Your task to perform on an android device: Open the web browser Image 0: 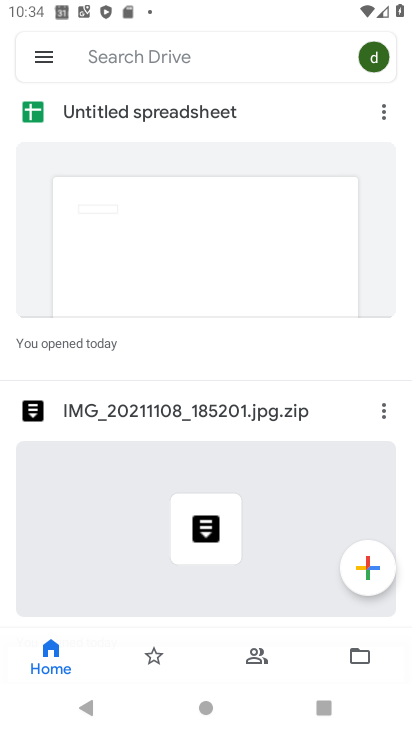
Step 0: press home button
Your task to perform on an android device: Open the web browser Image 1: 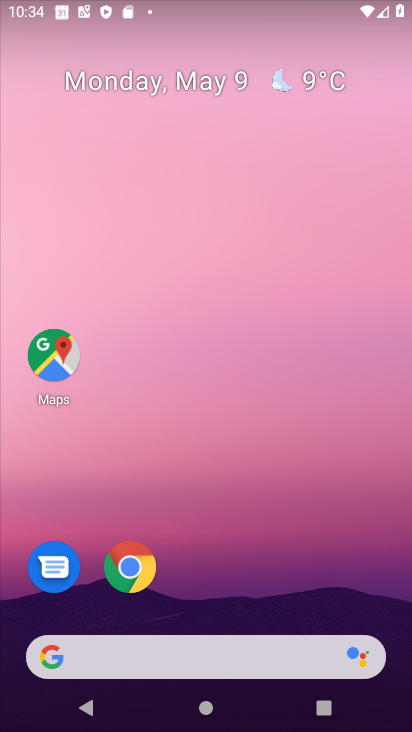
Step 1: click (127, 563)
Your task to perform on an android device: Open the web browser Image 2: 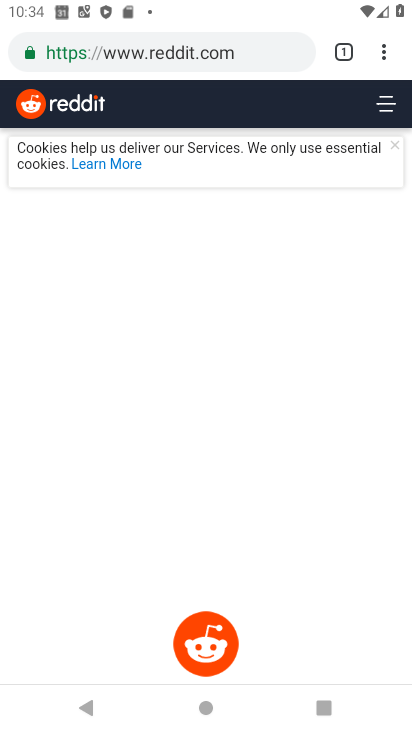
Step 2: click (345, 47)
Your task to perform on an android device: Open the web browser Image 3: 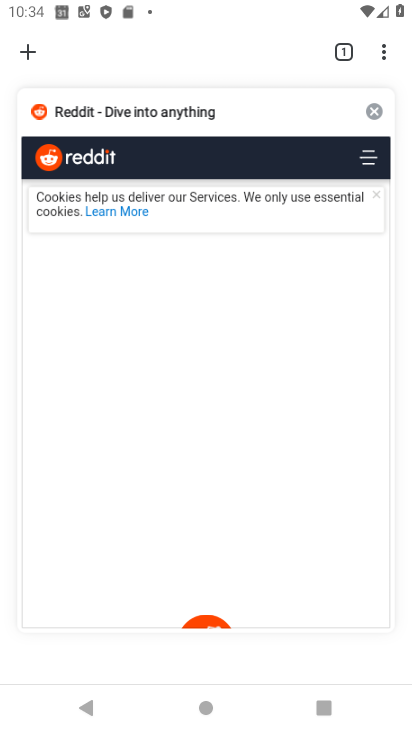
Step 3: click (372, 110)
Your task to perform on an android device: Open the web browser Image 4: 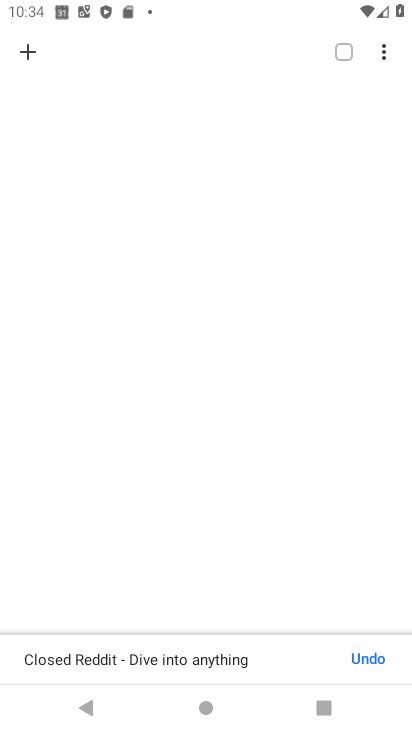
Step 4: click (28, 53)
Your task to perform on an android device: Open the web browser Image 5: 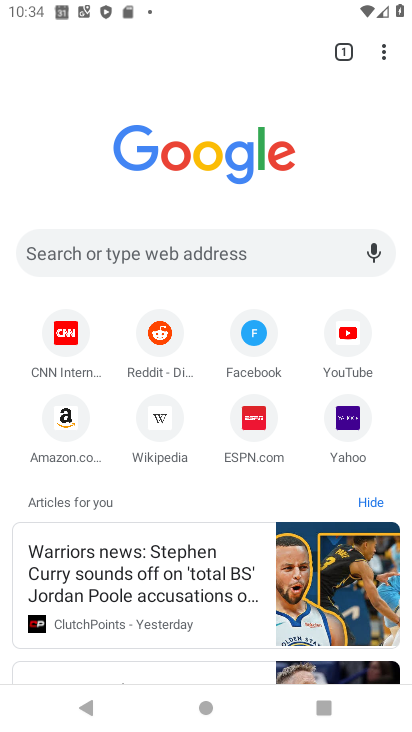
Step 5: task complete